Your task to perform on an android device: install app "Google Home" Image 0: 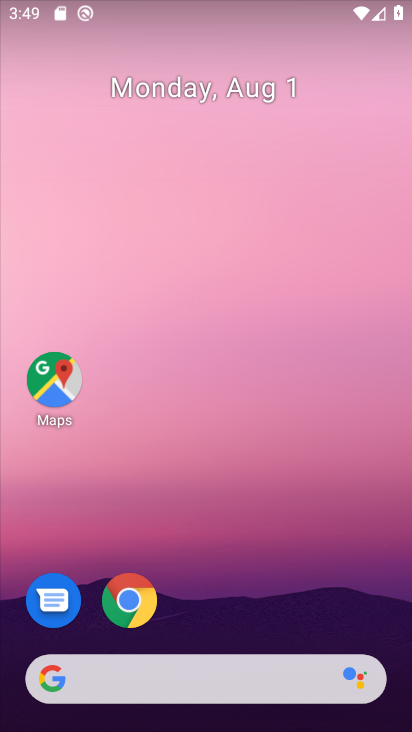
Step 0: drag from (284, 552) to (270, 71)
Your task to perform on an android device: install app "Google Home" Image 1: 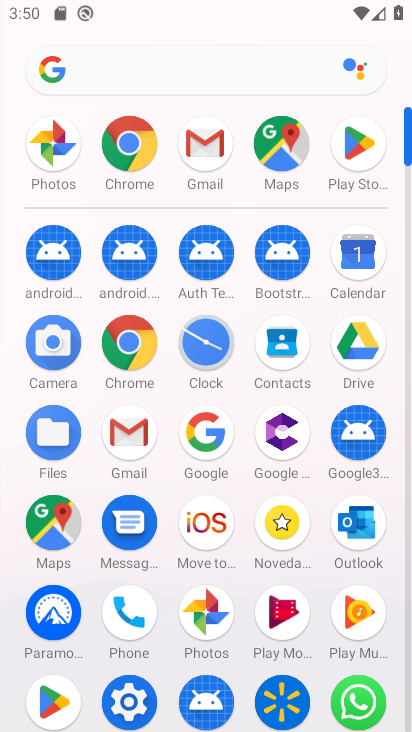
Step 1: click (357, 137)
Your task to perform on an android device: install app "Google Home" Image 2: 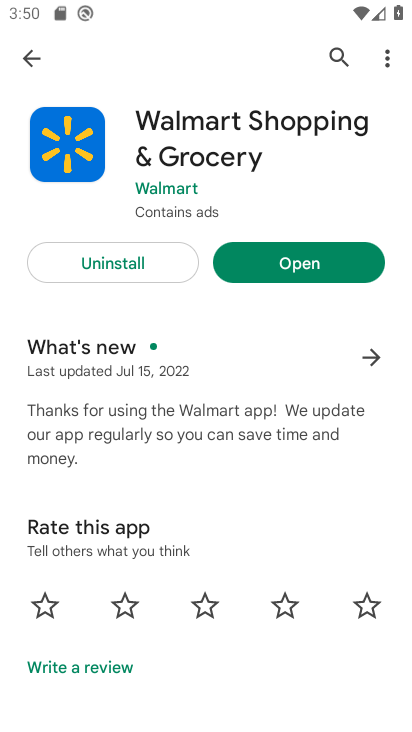
Step 2: click (347, 33)
Your task to perform on an android device: install app "Google Home" Image 3: 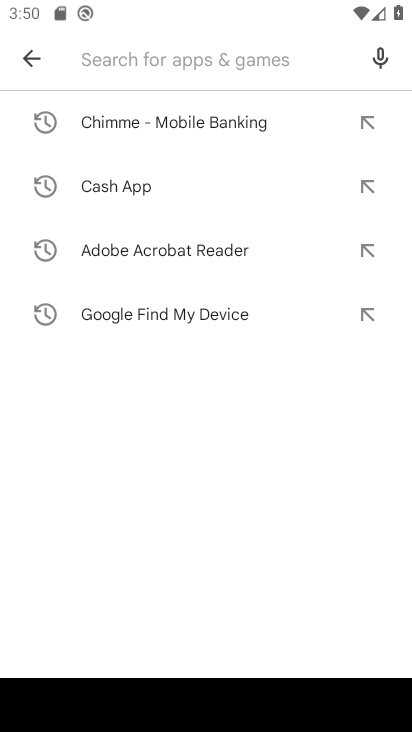
Step 3: type "Google Home"
Your task to perform on an android device: install app "Google Home" Image 4: 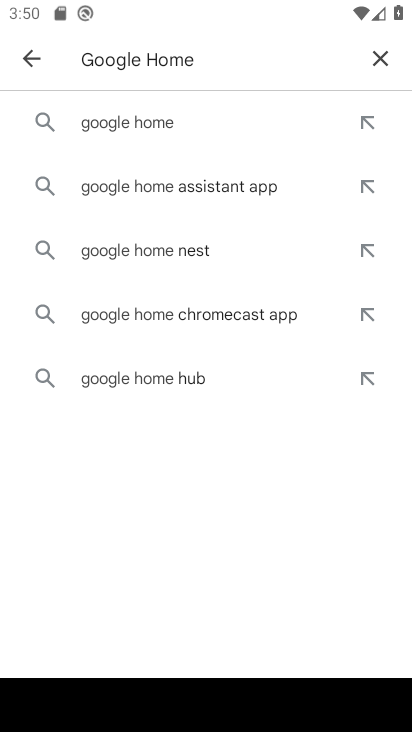
Step 4: press enter
Your task to perform on an android device: install app "Google Home" Image 5: 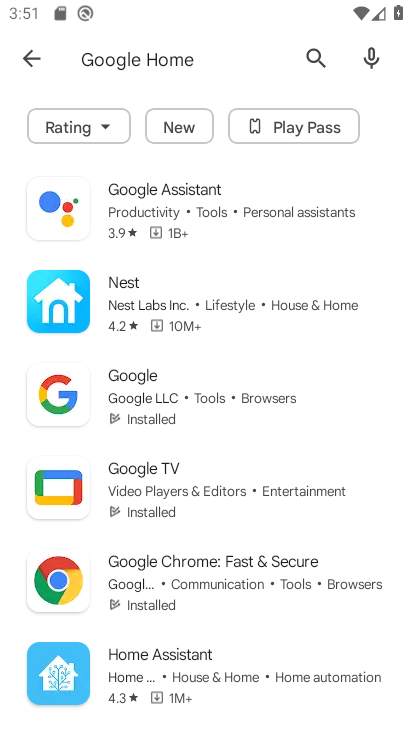
Step 5: task complete